Your task to perform on an android device: When is my next appointment? Image 0: 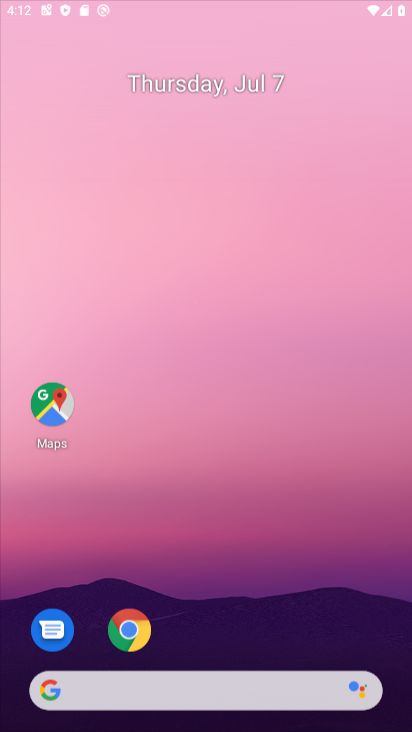
Step 0: click (130, 622)
Your task to perform on an android device: When is my next appointment? Image 1: 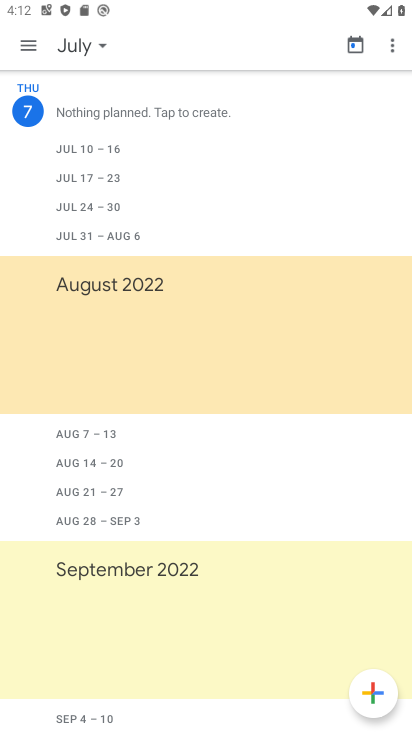
Step 1: click (36, 44)
Your task to perform on an android device: When is my next appointment? Image 2: 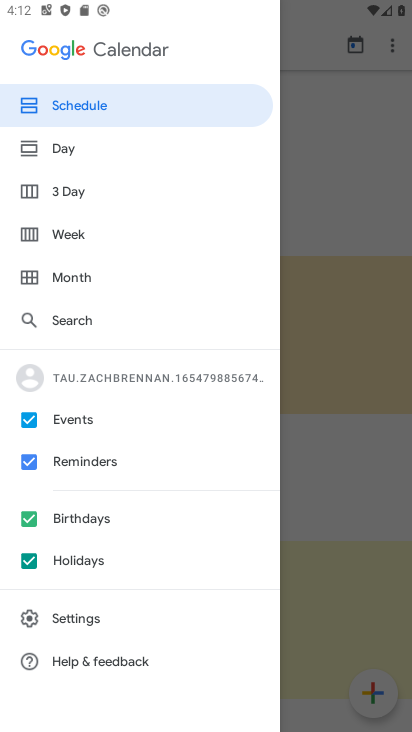
Step 2: task complete